Your task to perform on an android device: Open Google Image 0: 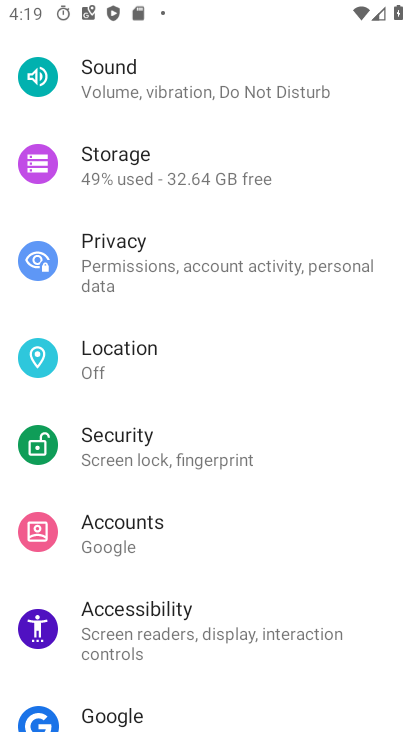
Step 0: press home button
Your task to perform on an android device: Open Google Image 1: 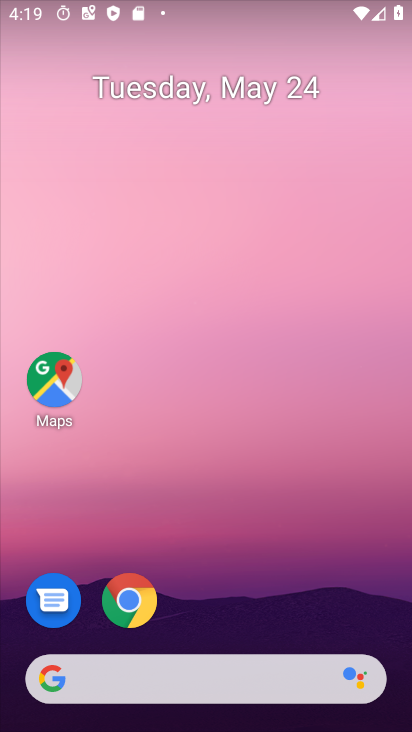
Step 1: drag from (269, 632) to (316, 20)
Your task to perform on an android device: Open Google Image 2: 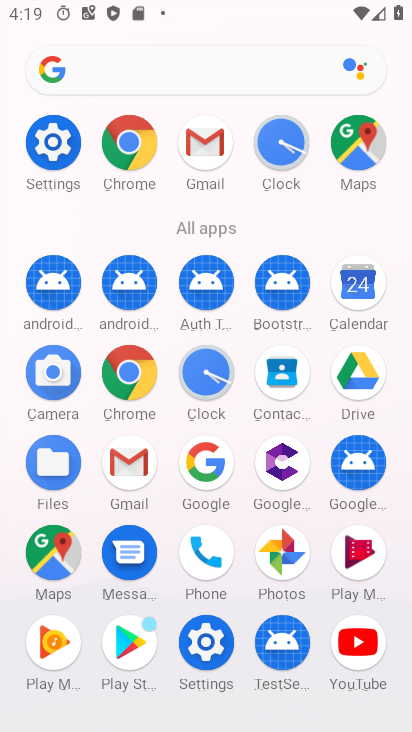
Step 2: click (207, 474)
Your task to perform on an android device: Open Google Image 3: 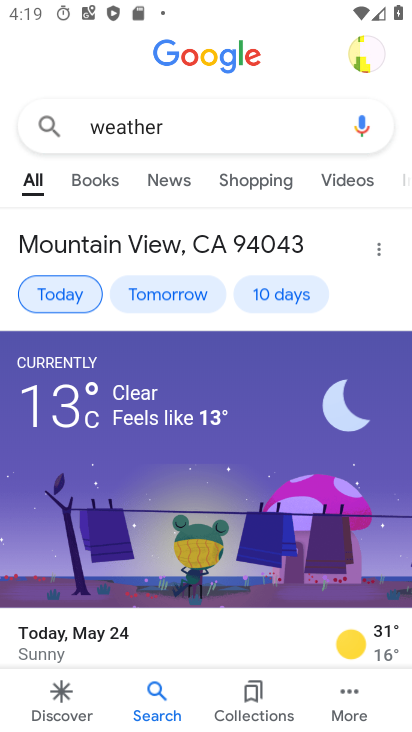
Step 3: task complete